Your task to perform on an android device: open a new tab in the chrome app Image 0: 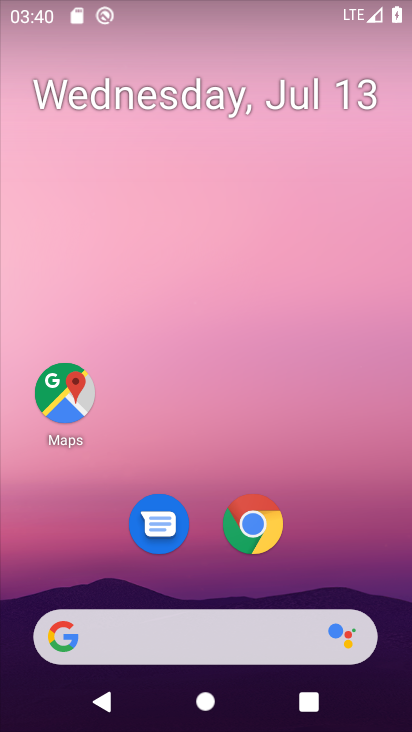
Step 0: click (259, 520)
Your task to perform on an android device: open a new tab in the chrome app Image 1: 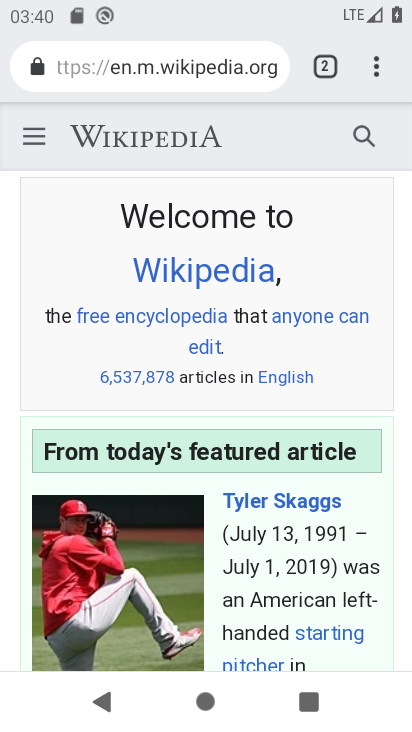
Step 1: click (370, 66)
Your task to perform on an android device: open a new tab in the chrome app Image 2: 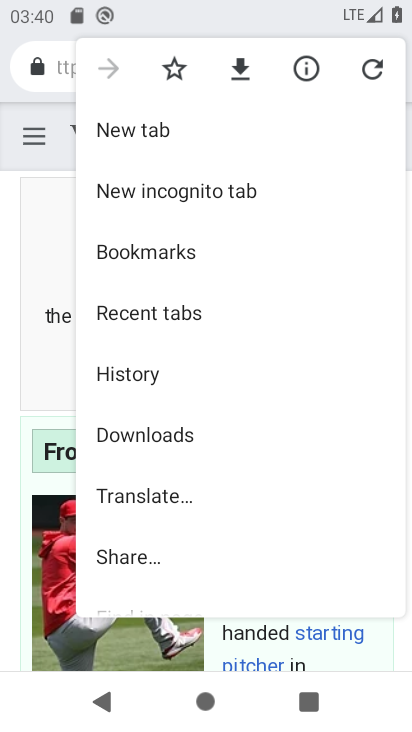
Step 2: click (297, 125)
Your task to perform on an android device: open a new tab in the chrome app Image 3: 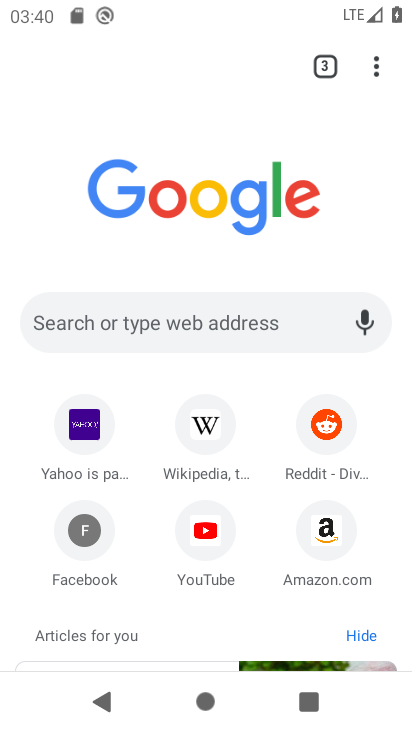
Step 3: task complete